Your task to perform on an android device: Check the weather Image 0: 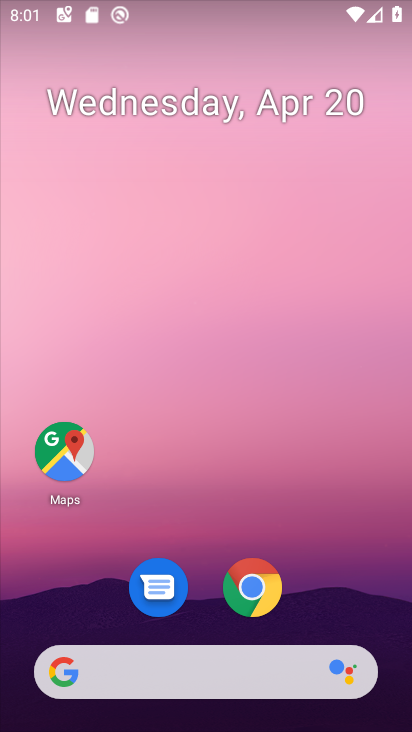
Step 0: drag from (338, 606) to (275, 506)
Your task to perform on an android device: Check the weather Image 1: 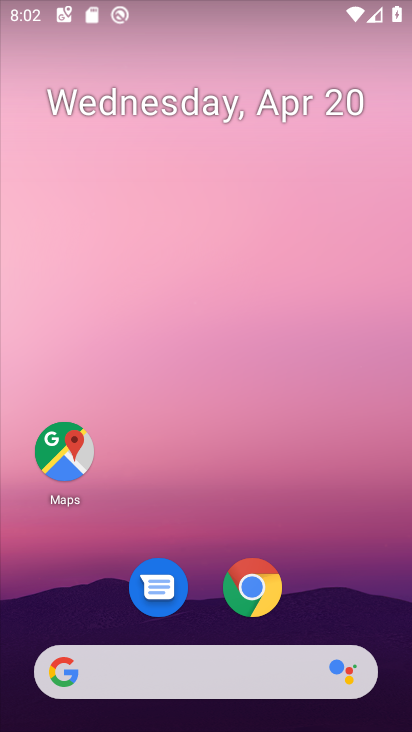
Step 1: drag from (321, 593) to (230, 15)
Your task to perform on an android device: Check the weather Image 2: 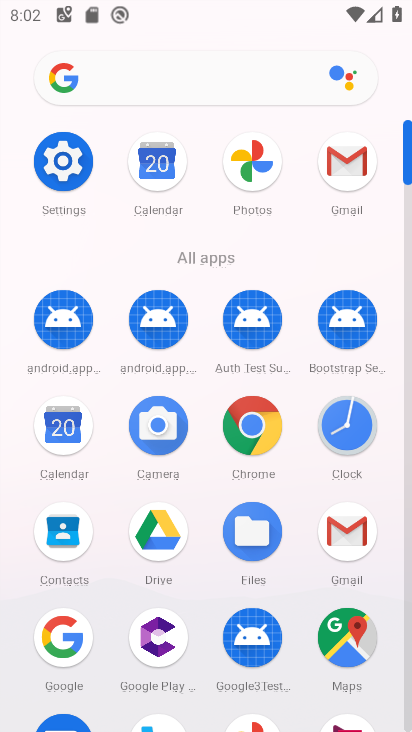
Step 2: click (185, 77)
Your task to perform on an android device: Check the weather Image 3: 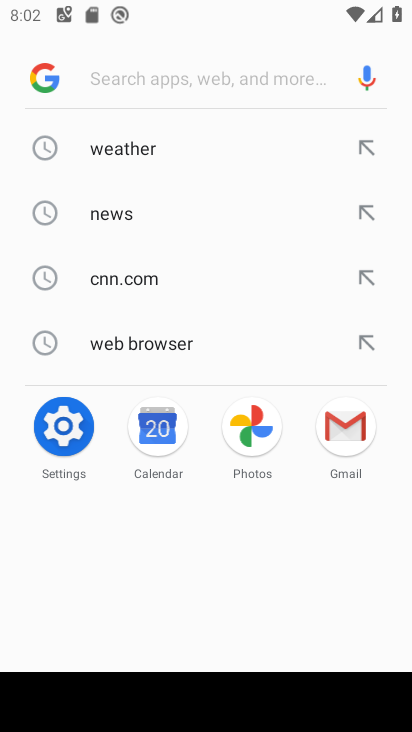
Step 3: click (194, 151)
Your task to perform on an android device: Check the weather Image 4: 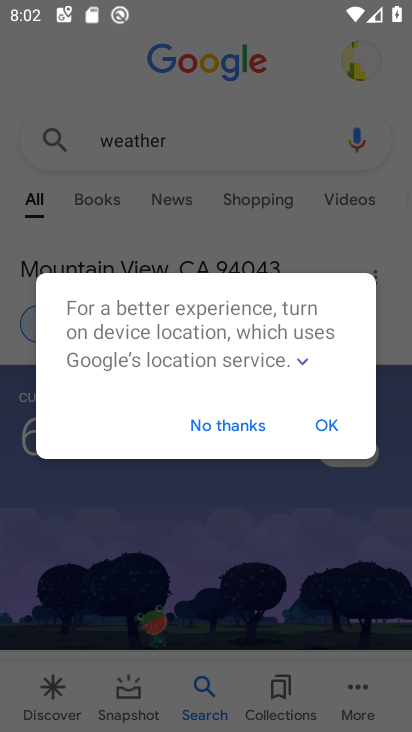
Step 4: click (330, 429)
Your task to perform on an android device: Check the weather Image 5: 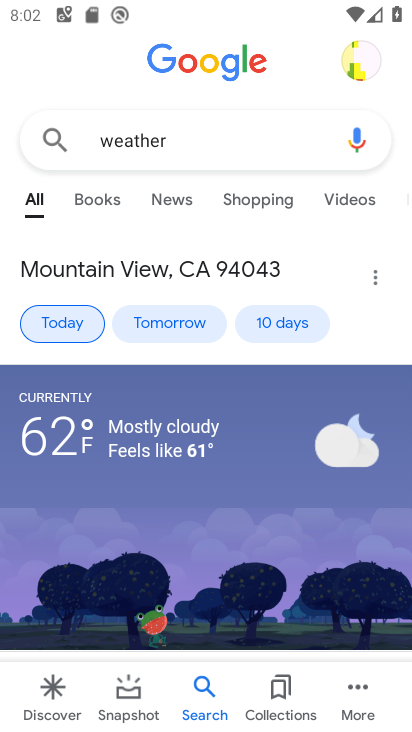
Step 5: task complete